Your task to perform on an android device: Go to notification settings Image 0: 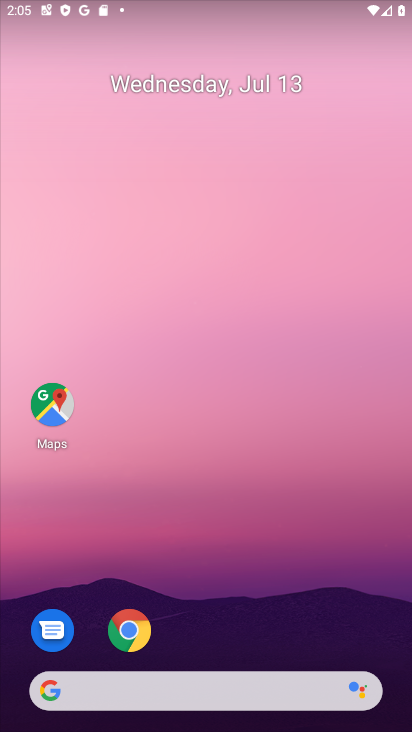
Step 0: drag from (199, 346) to (205, 112)
Your task to perform on an android device: Go to notification settings Image 1: 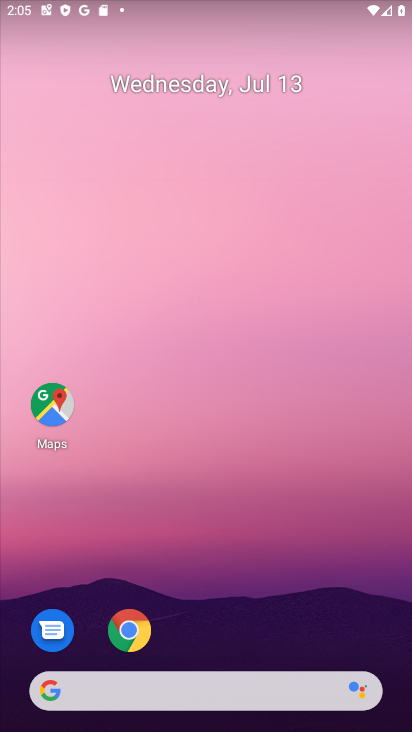
Step 1: drag from (234, 658) to (225, 160)
Your task to perform on an android device: Go to notification settings Image 2: 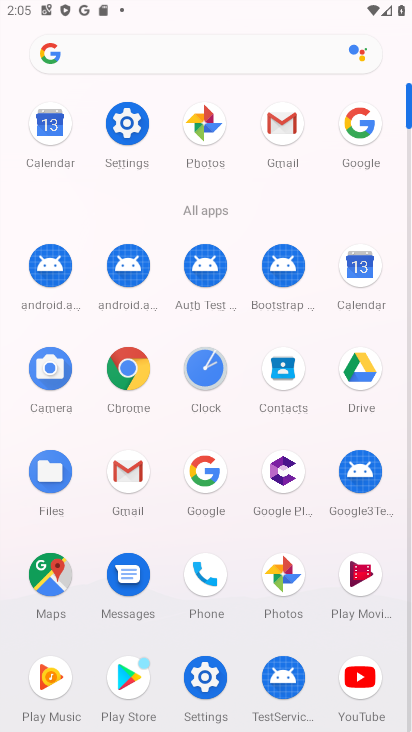
Step 2: click (126, 129)
Your task to perform on an android device: Go to notification settings Image 3: 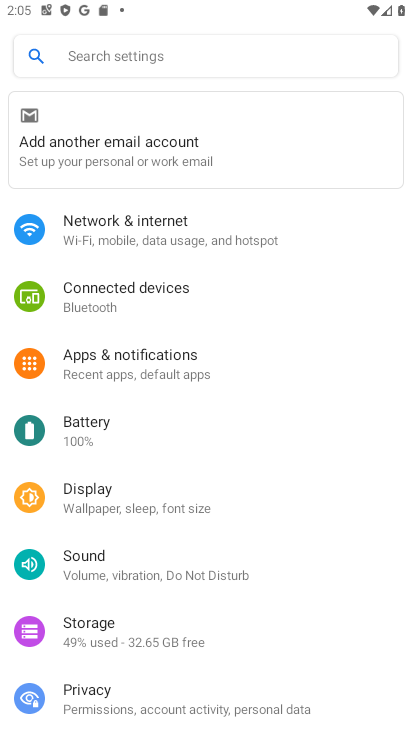
Step 3: click (146, 383)
Your task to perform on an android device: Go to notification settings Image 4: 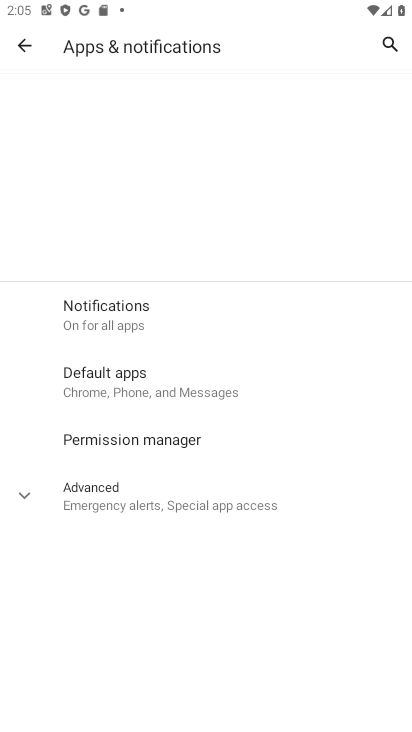
Step 4: click (102, 303)
Your task to perform on an android device: Go to notification settings Image 5: 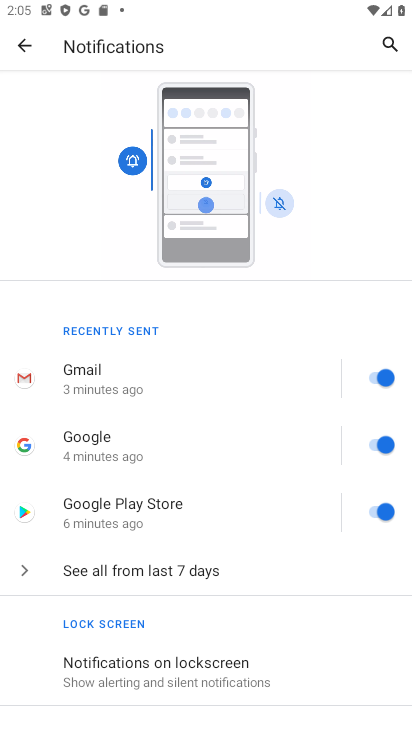
Step 5: task complete